Your task to perform on an android device: Open Google Chrome and click the shortcut for Amazon.com Image 0: 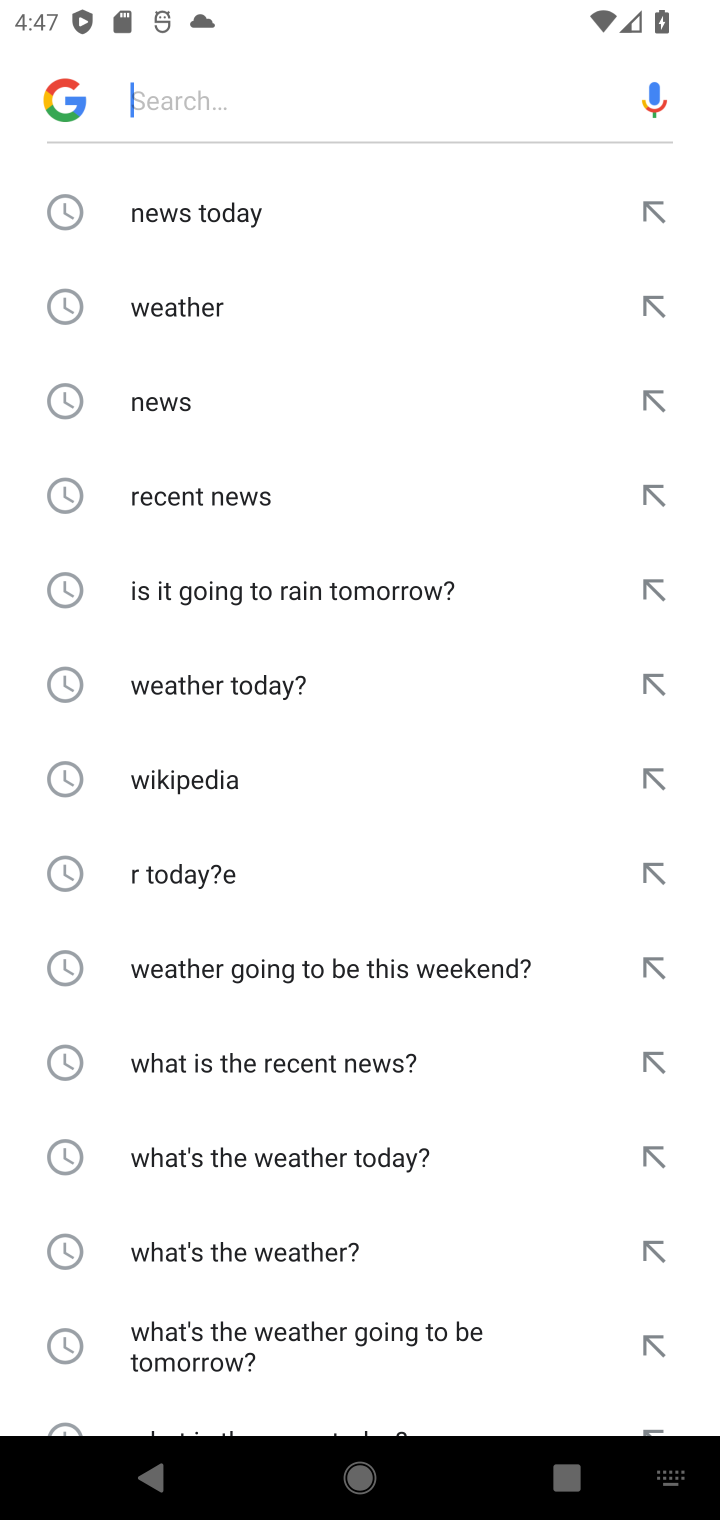
Step 0: press home button
Your task to perform on an android device: Open Google Chrome and click the shortcut for Amazon.com Image 1: 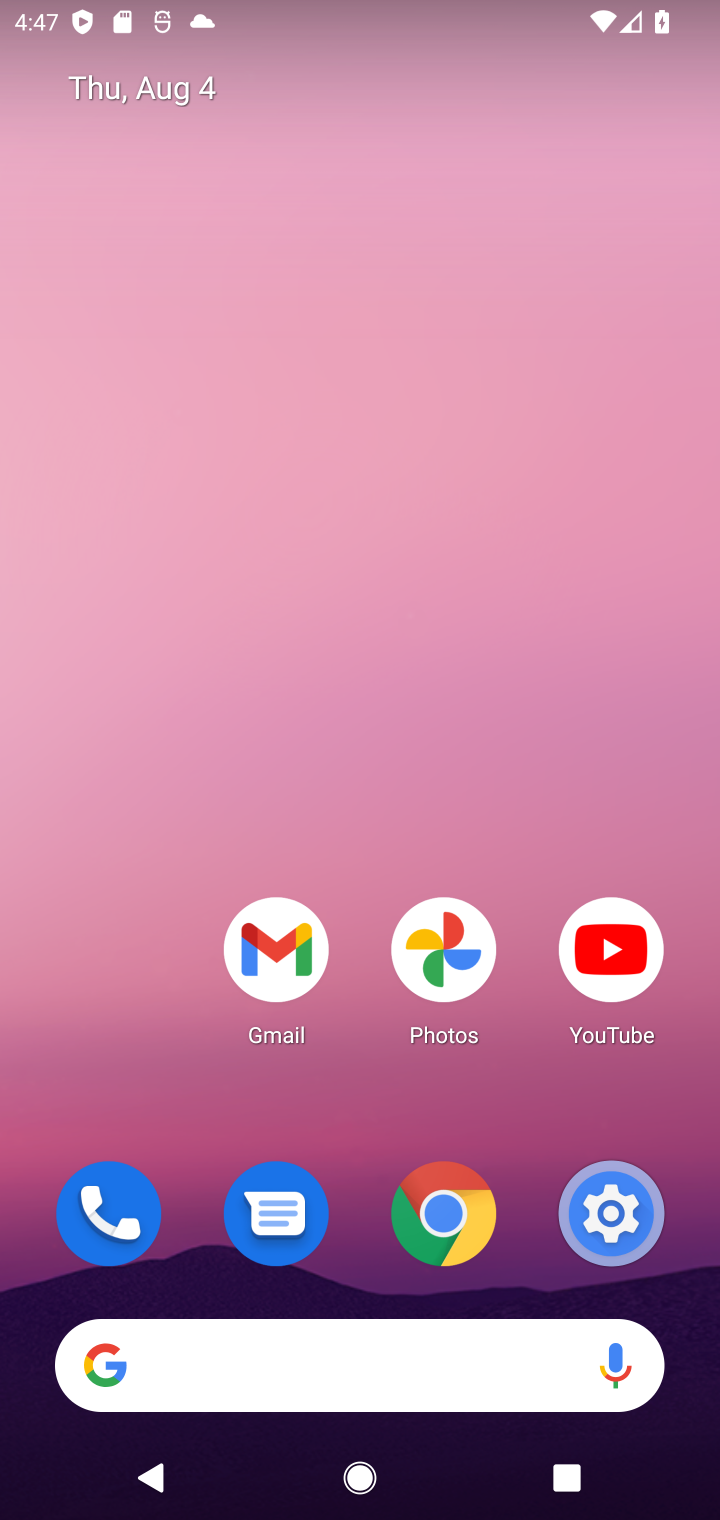
Step 1: drag from (311, 1371) to (353, 222)
Your task to perform on an android device: Open Google Chrome and click the shortcut for Amazon.com Image 2: 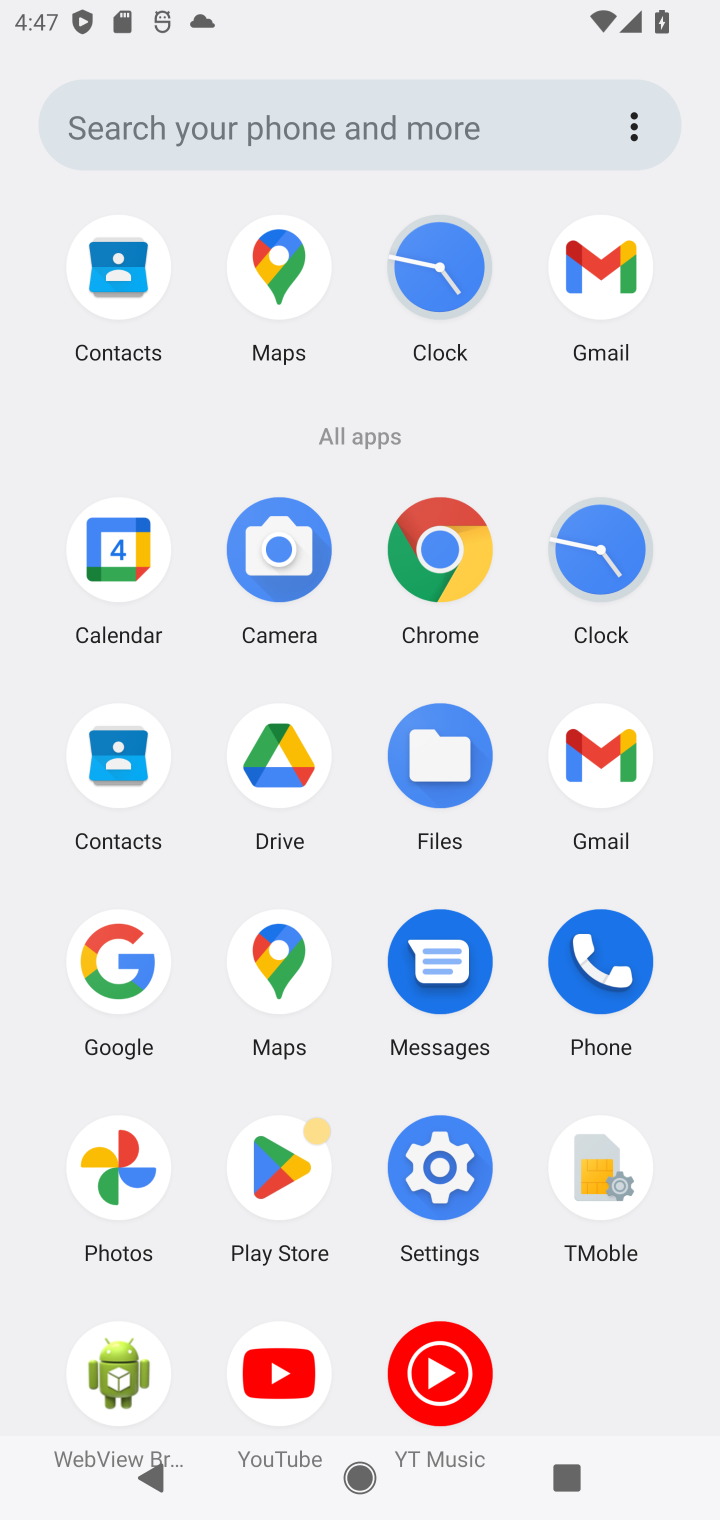
Step 2: click (437, 560)
Your task to perform on an android device: Open Google Chrome and click the shortcut for Amazon.com Image 3: 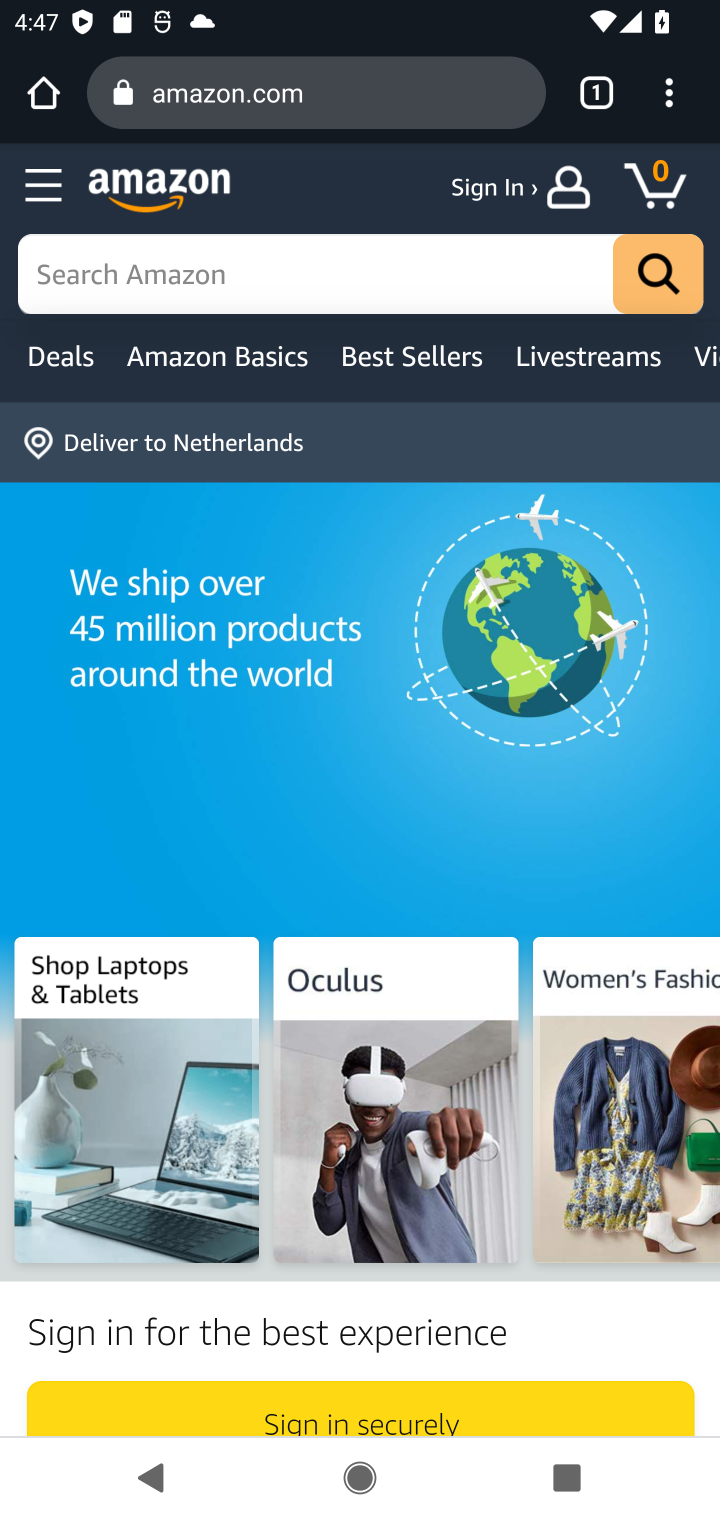
Step 3: click (669, 107)
Your task to perform on an android device: Open Google Chrome and click the shortcut for Amazon.com Image 4: 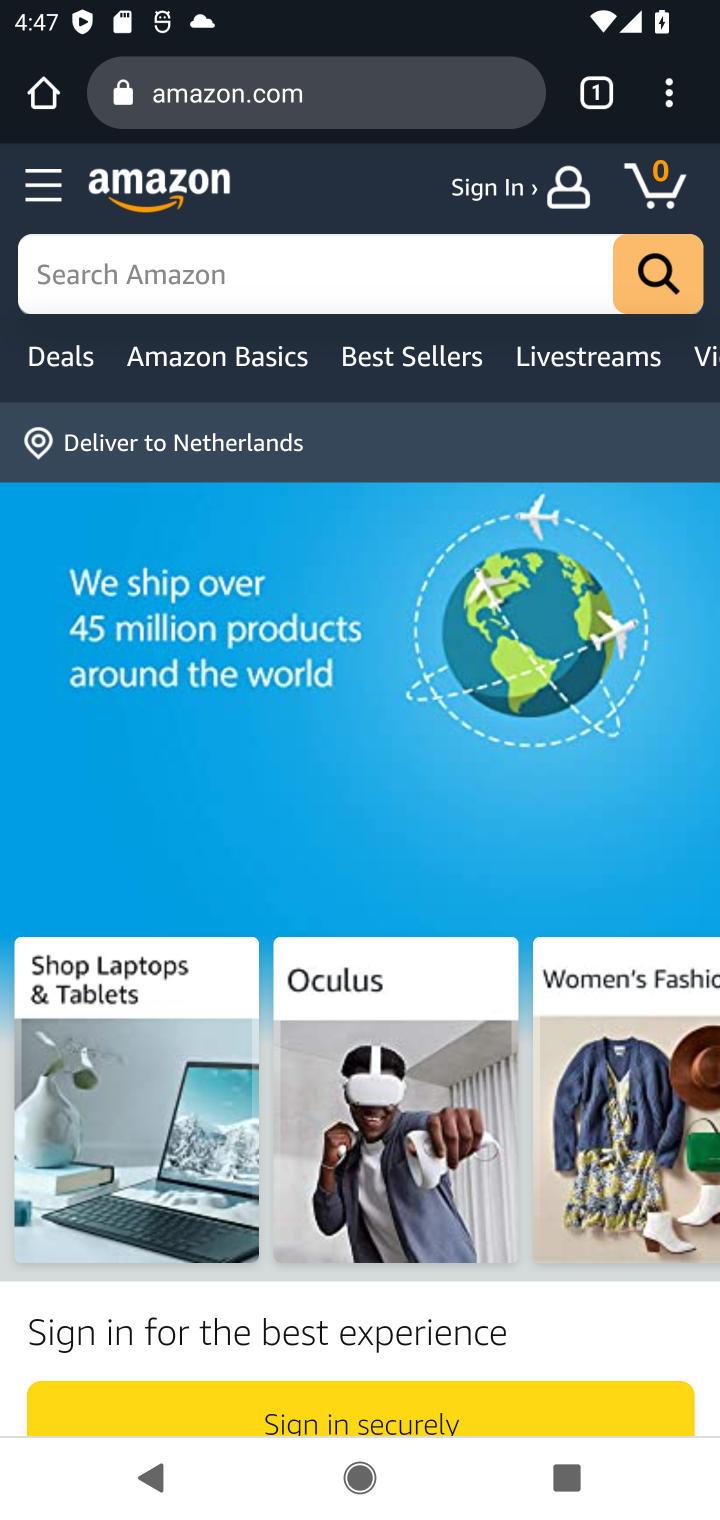
Step 4: drag from (669, 107) to (456, 1122)
Your task to perform on an android device: Open Google Chrome and click the shortcut for Amazon.com Image 5: 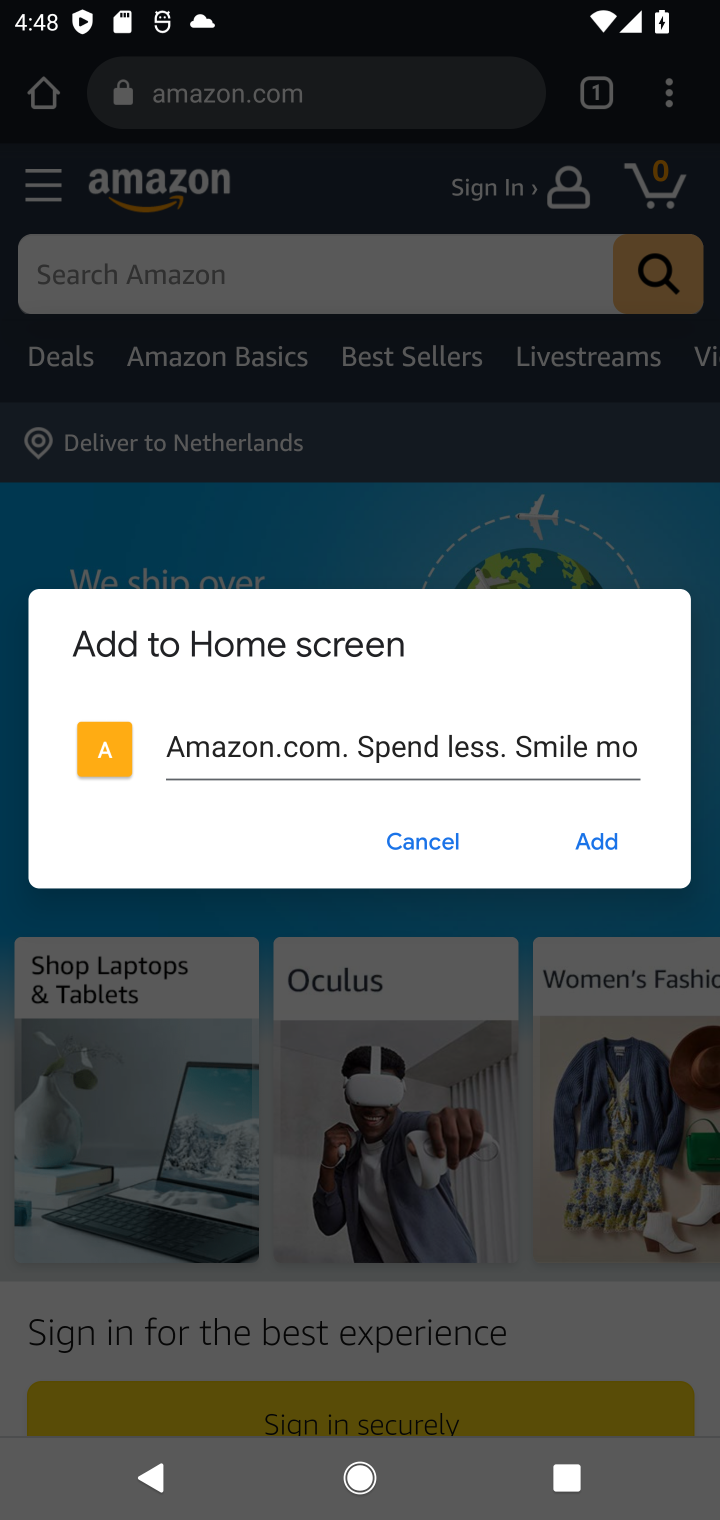
Step 5: click (617, 833)
Your task to perform on an android device: Open Google Chrome and click the shortcut for Amazon.com Image 6: 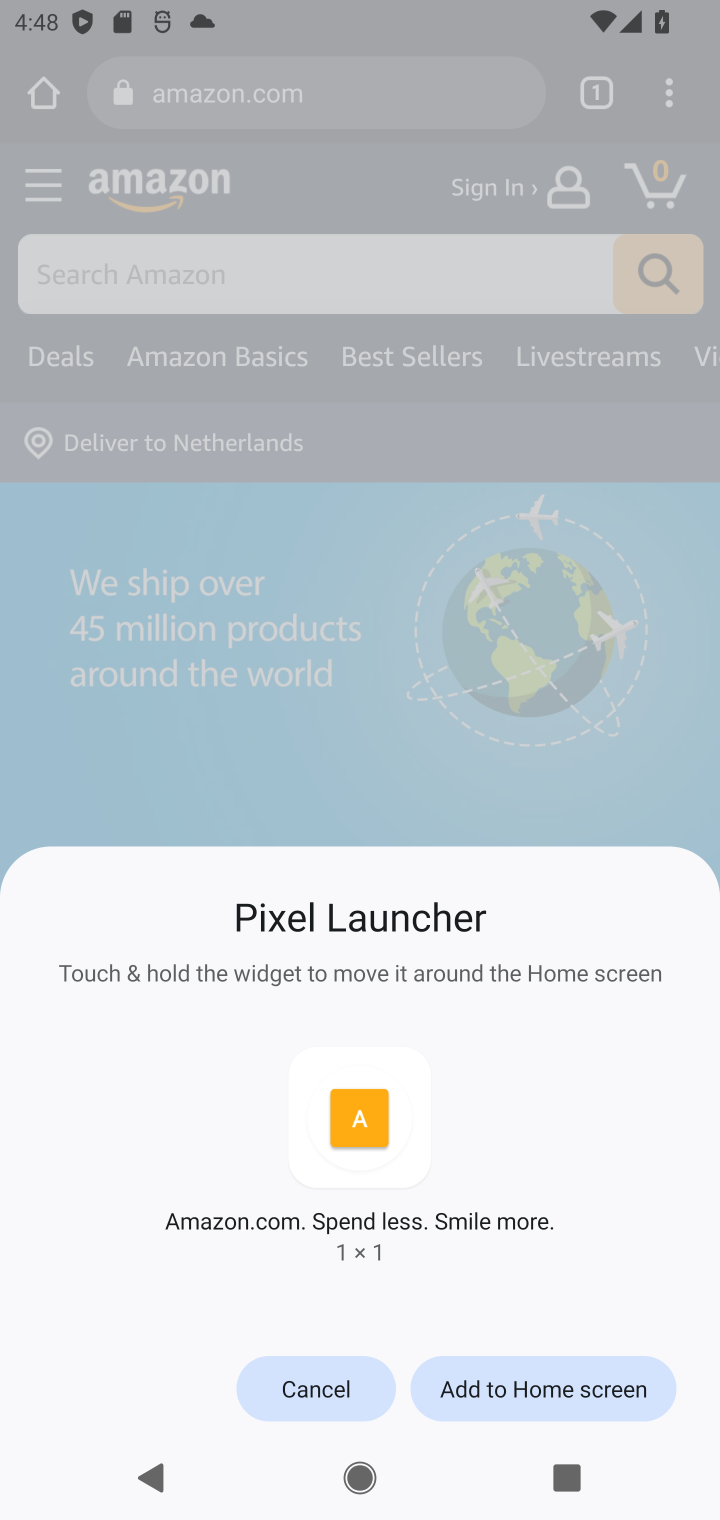
Step 6: click (512, 1383)
Your task to perform on an android device: Open Google Chrome and click the shortcut for Amazon.com Image 7: 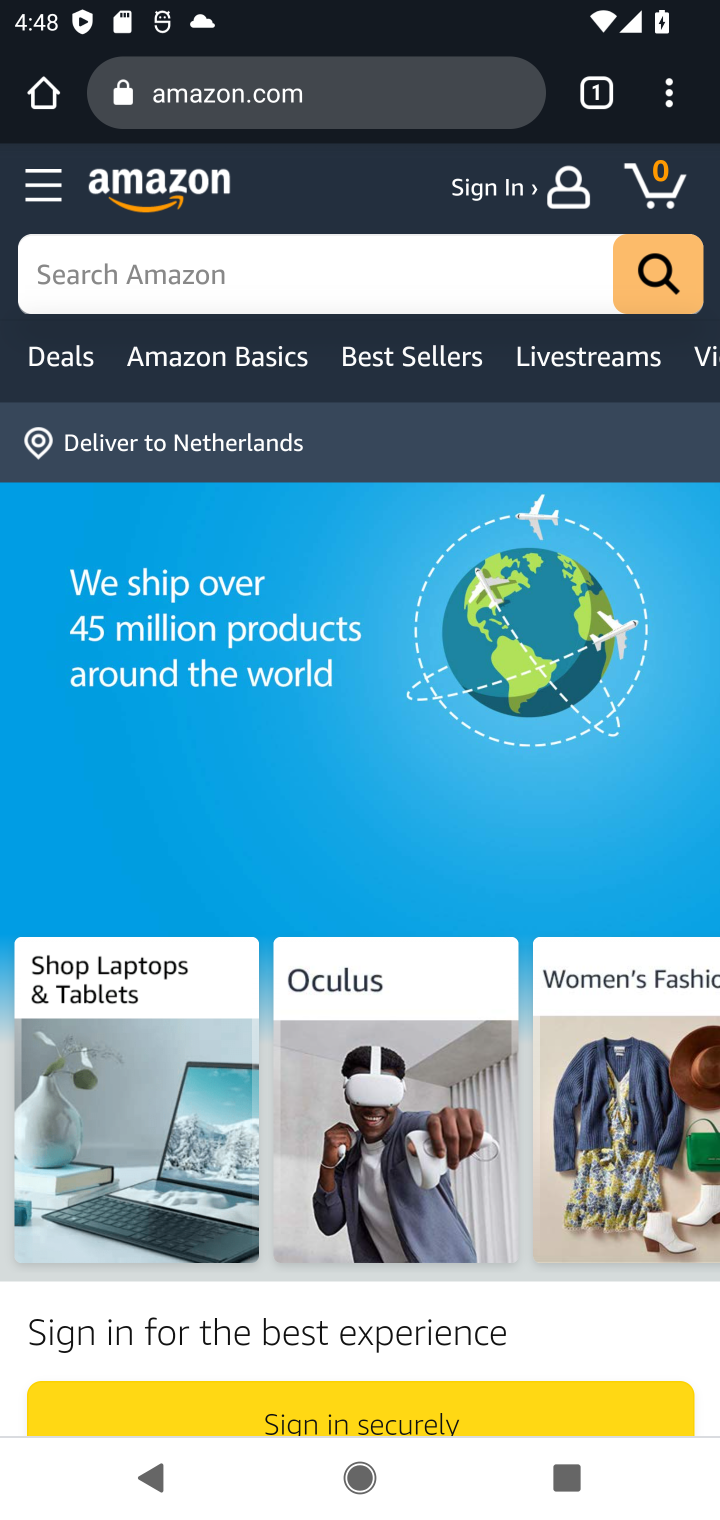
Step 7: task complete